Your task to perform on an android device: open chrome privacy settings Image 0: 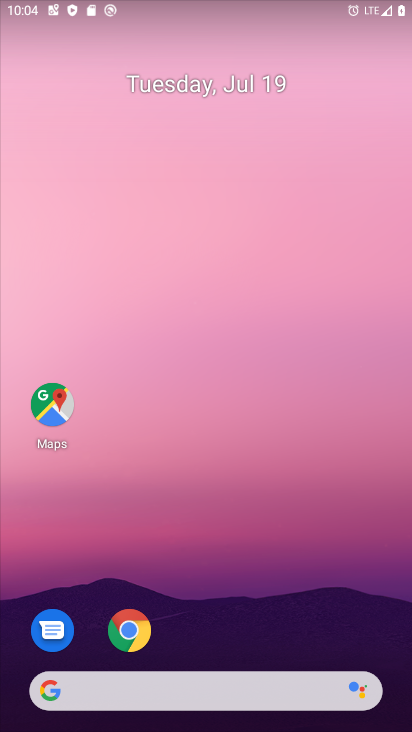
Step 0: click (131, 629)
Your task to perform on an android device: open chrome privacy settings Image 1: 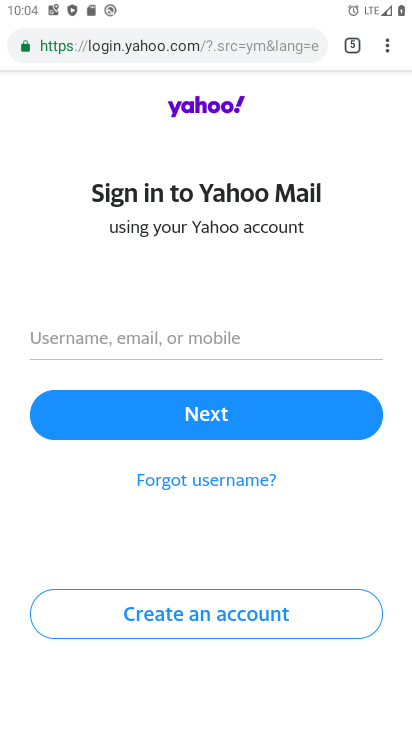
Step 1: click (377, 45)
Your task to perform on an android device: open chrome privacy settings Image 2: 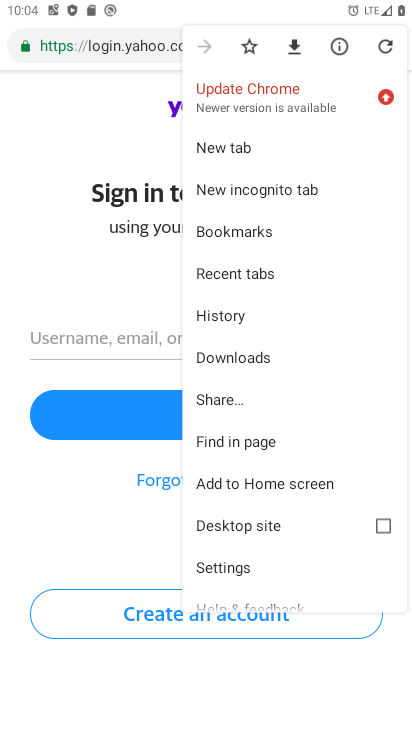
Step 2: click (229, 564)
Your task to perform on an android device: open chrome privacy settings Image 3: 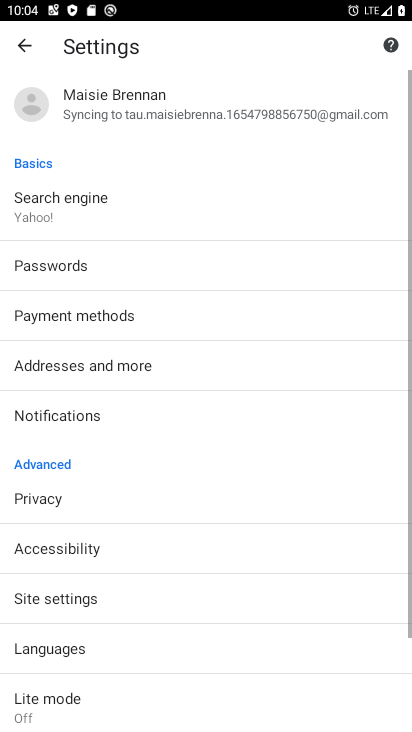
Step 3: click (61, 499)
Your task to perform on an android device: open chrome privacy settings Image 4: 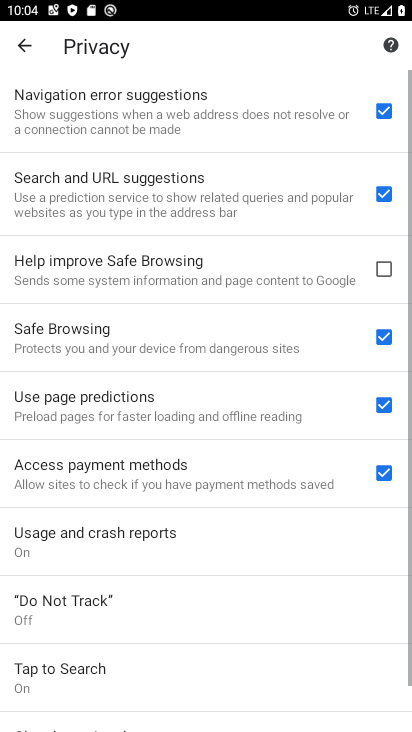
Step 4: task complete